Your task to perform on an android device: delete location history Image 0: 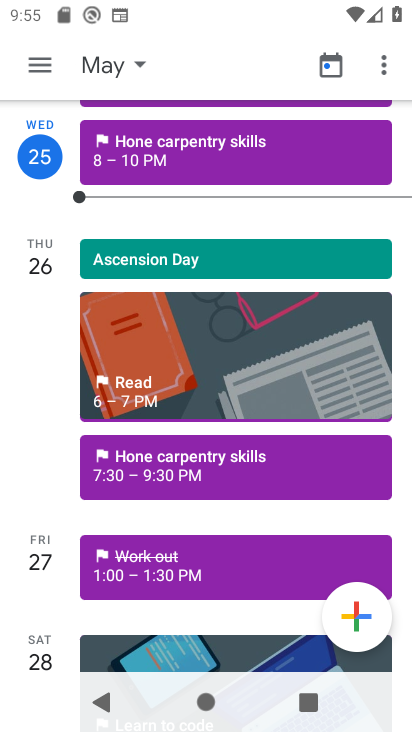
Step 0: press home button
Your task to perform on an android device: delete location history Image 1: 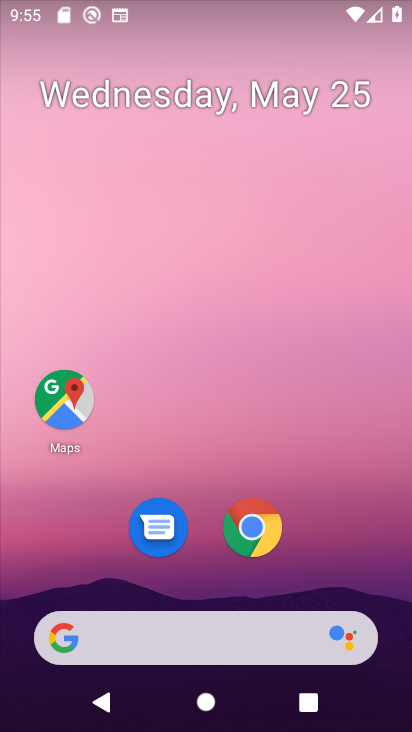
Step 1: drag from (343, 588) to (316, 55)
Your task to perform on an android device: delete location history Image 2: 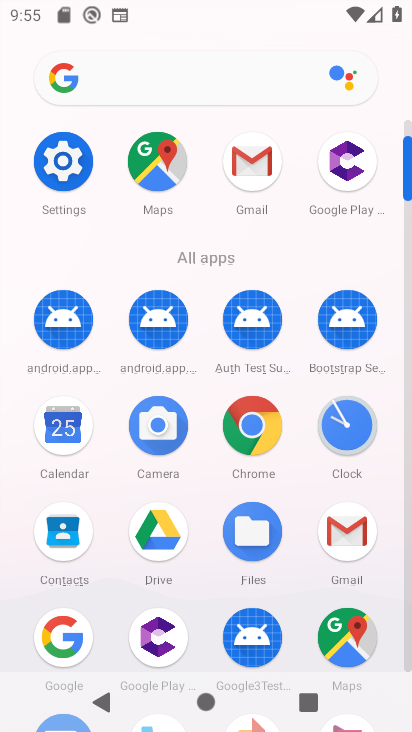
Step 2: click (161, 144)
Your task to perform on an android device: delete location history Image 3: 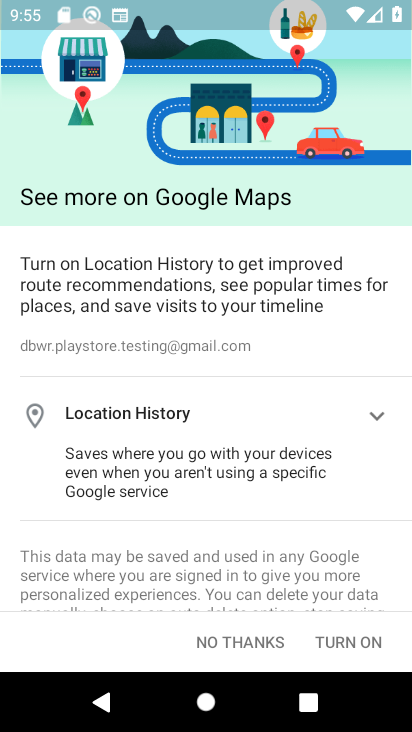
Step 3: click (352, 643)
Your task to perform on an android device: delete location history Image 4: 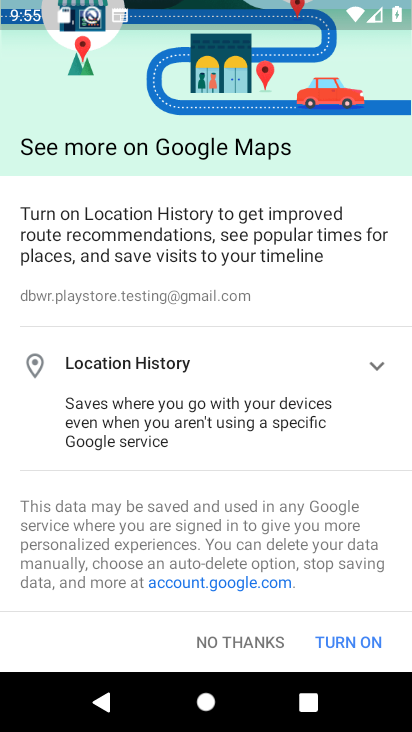
Step 4: click (331, 638)
Your task to perform on an android device: delete location history Image 5: 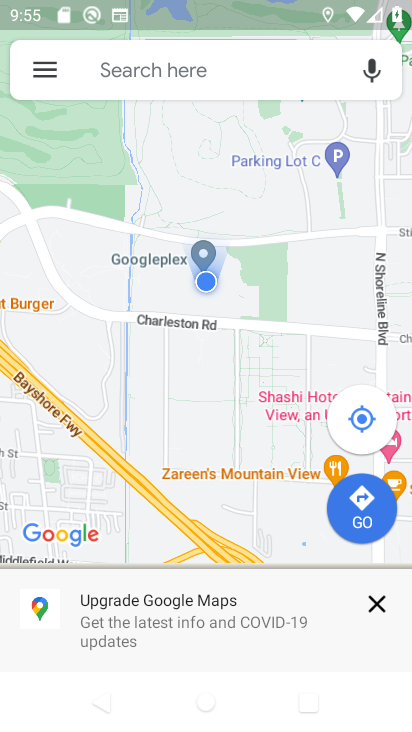
Step 5: click (33, 69)
Your task to perform on an android device: delete location history Image 6: 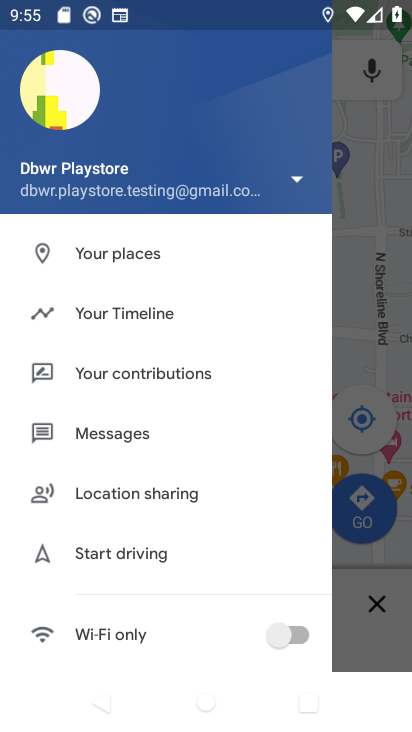
Step 6: click (106, 313)
Your task to perform on an android device: delete location history Image 7: 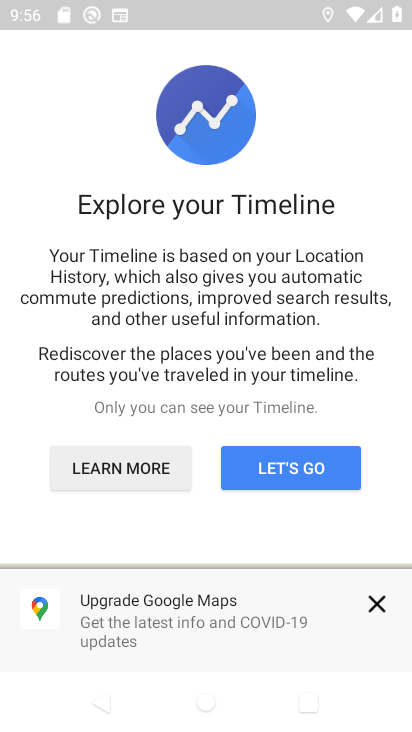
Step 7: click (379, 598)
Your task to perform on an android device: delete location history Image 8: 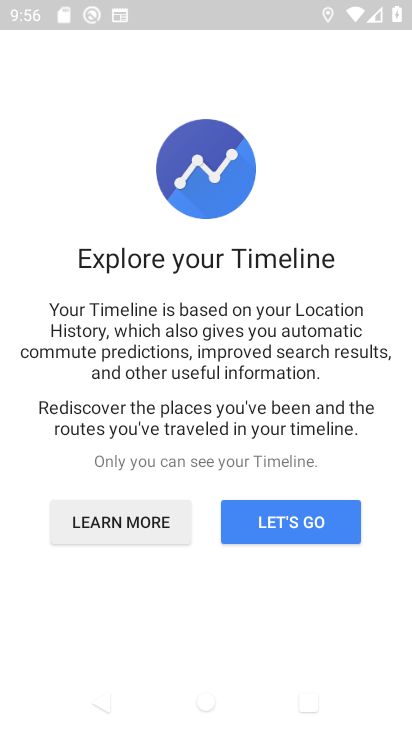
Step 8: click (317, 521)
Your task to perform on an android device: delete location history Image 9: 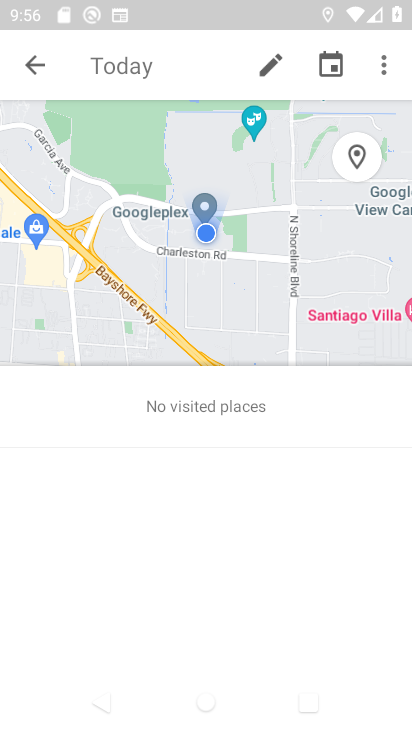
Step 9: click (386, 75)
Your task to perform on an android device: delete location history Image 10: 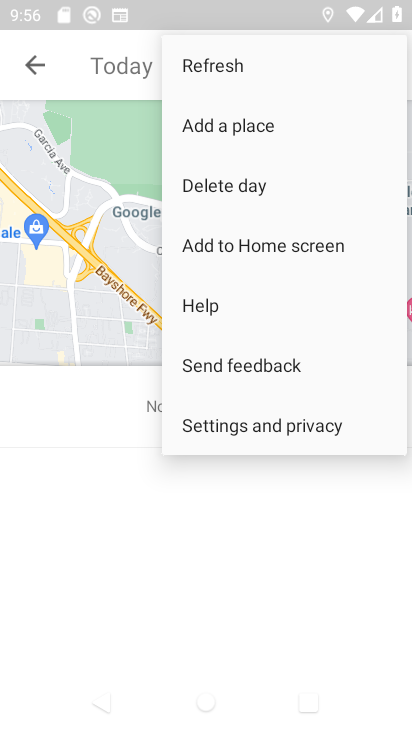
Step 10: click (258, 193)
Your task to perform on an android device: delete location history Image 11: 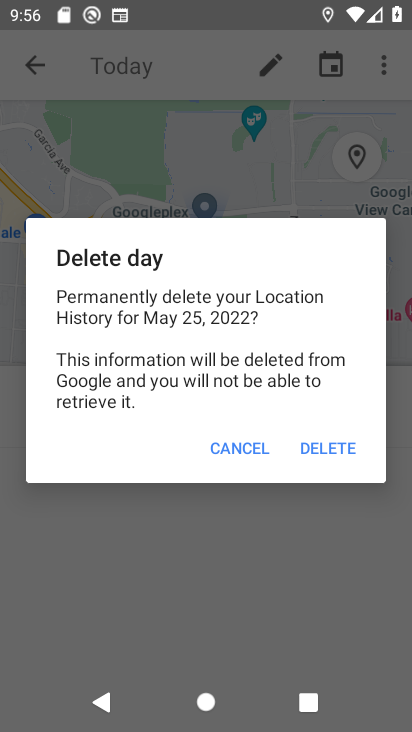
Step 11: click (333, 454)
Your task to perform on an android device: delete location history Image 12: 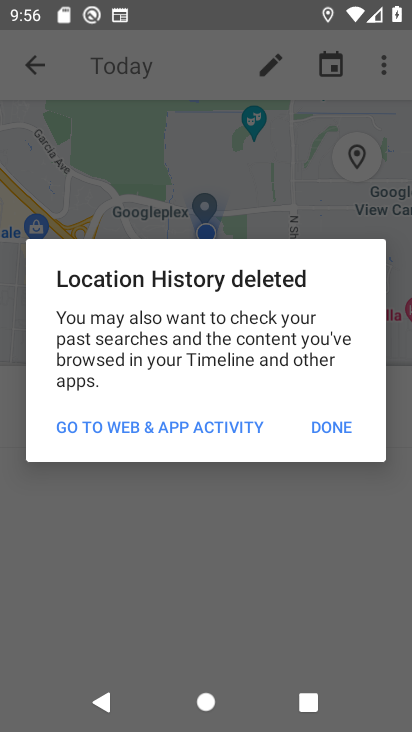
Step 12: click (328, 416)
Your task to perform on an android device: delete location history Image 13: 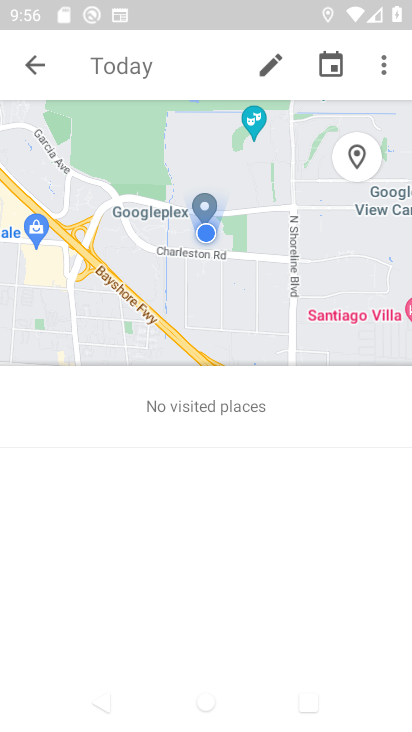
Step 13: task complete